Your task to perform on an android device: Go to location settings Image 0: 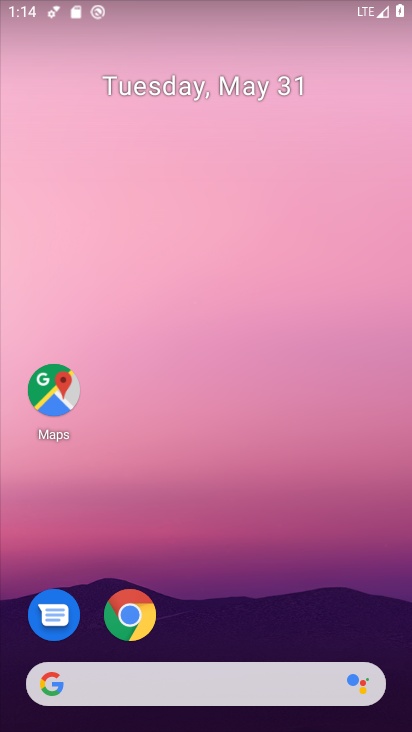
Step 0: drag from (200, 612) to (269, 77)
Your task to perform on an android device: Go to location settings Image 1: 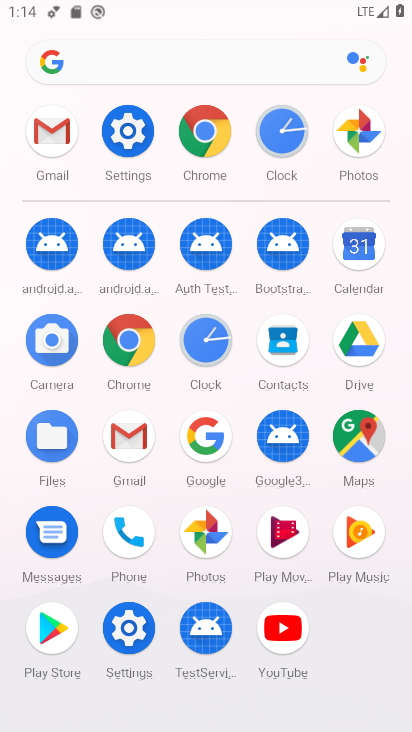
Step 1: click (126, 629)
Your task to perform on an android device: Go to location settings Image 2: 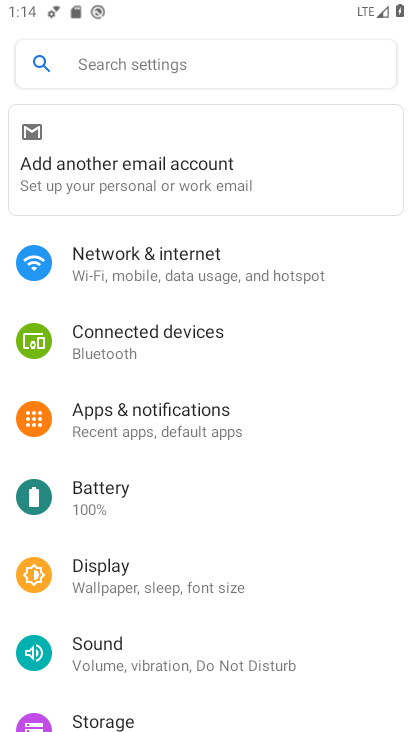
Step 2: drag from (208, 641) to (242, 231)
Your task to perform on an android device: Go to location settings Image 3: 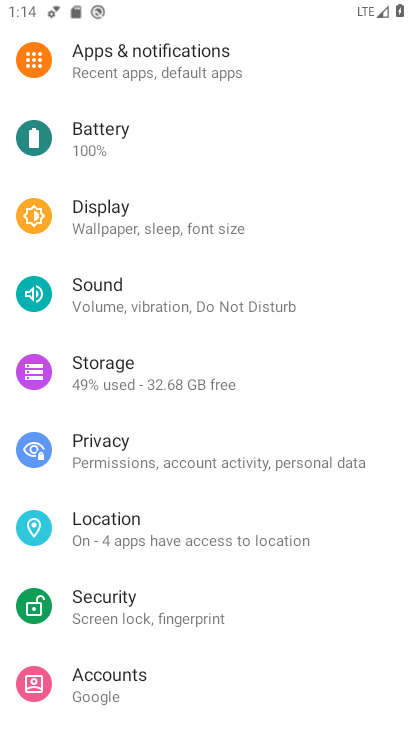
Step 3: click (152, 540)
Your task to perform on an android device: Go to location settings Image 4: 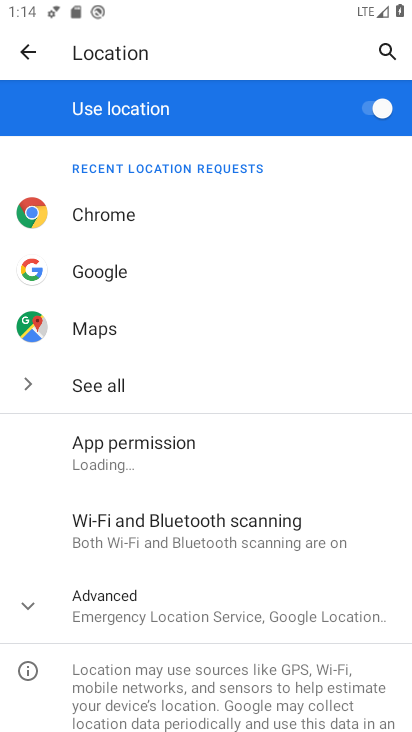
Step 4: task complete